Your task to perform on an android device: Open Chrome and go to settings Image 0: 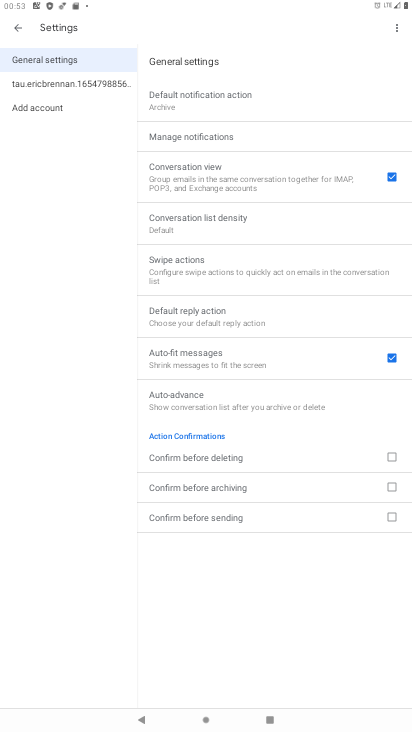
Step 0: press home button
Your task to perform on an android device: Open Chrome and go to settings Image 1: 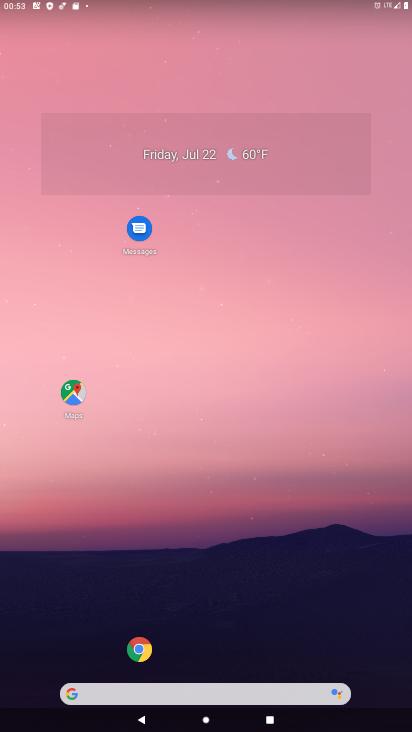
Step 1: click (140, 650)
Your task to perform on an android device: Open Chrome and go to settings Image 2: 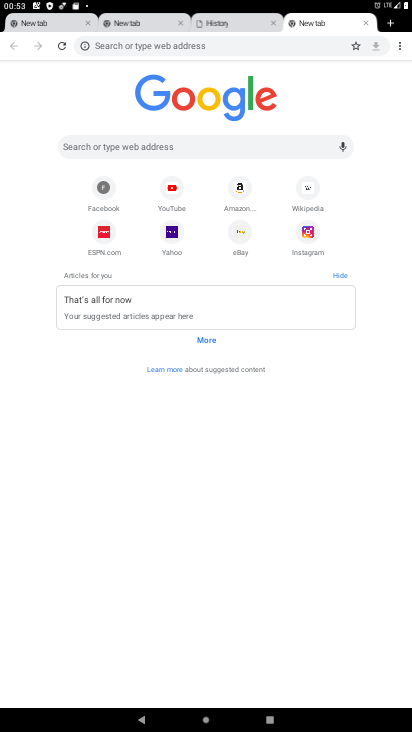
Step 2: click (399, 44)
Your task to perform on an android device: Open Chrome and go to settings Image 3: 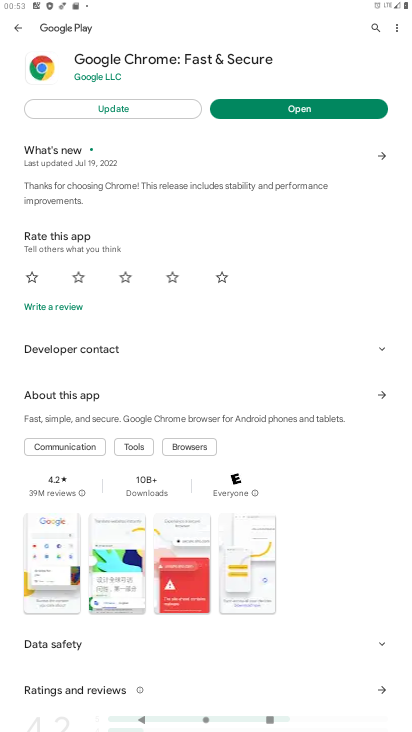
Step 3: click (340, 99)
Your task to perform on an android device: Open Chrome and go to settings Image 4: 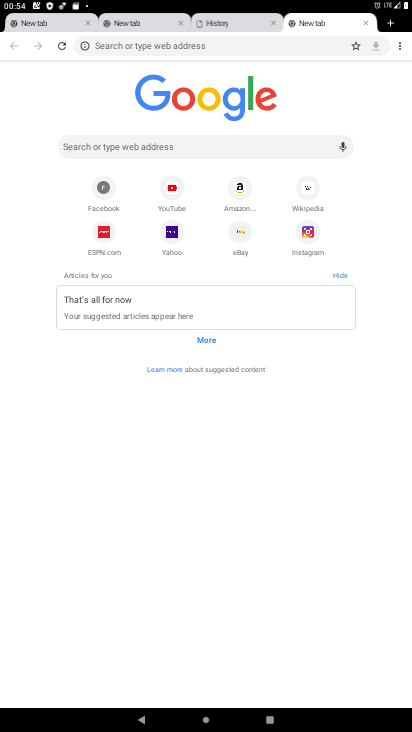
Step 4: click (398, 39)
Your task to perform on an android device: Open Chrome and go to settings Image 5: 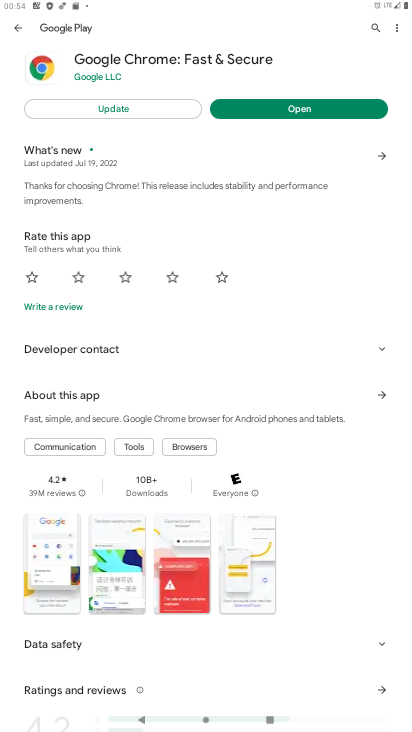
Step 5: task complete